Your task to perform on an android device: Open Yahoo.com Image 0: 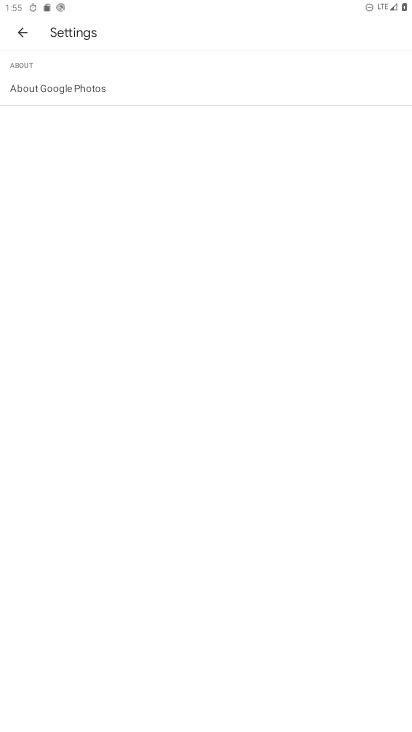
Step 0: press home button
Your task to perform on an android device: Open Yahoo.com Image 1: 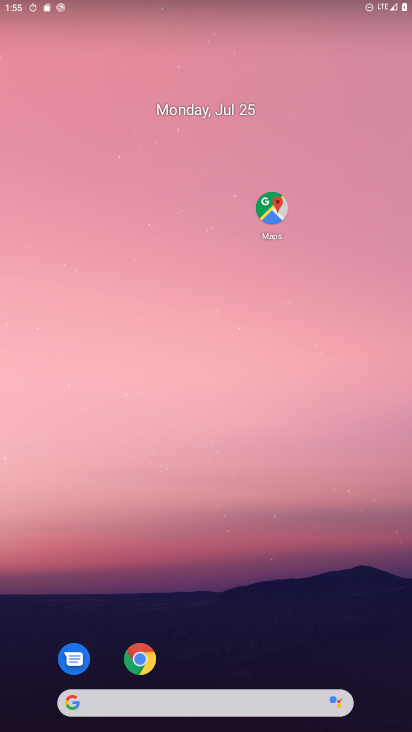
Step 1: click (110, 705)
Your task to perform on an android device: Open Yahoo.com Image 2: 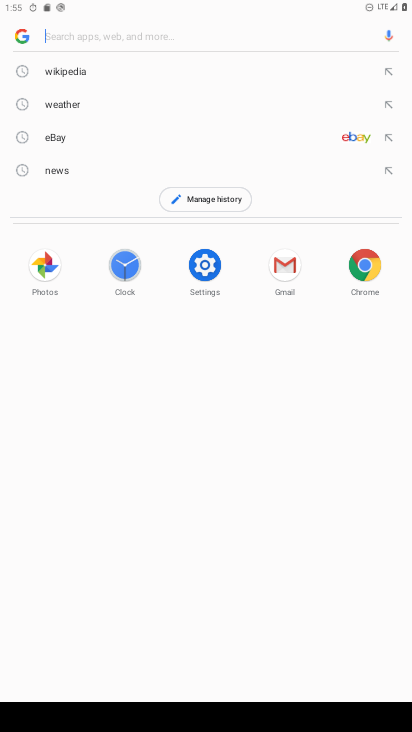
Step 2: type "Yahoo.com"
Your task to perform on an android device: Open Yahoo.com Image 3: 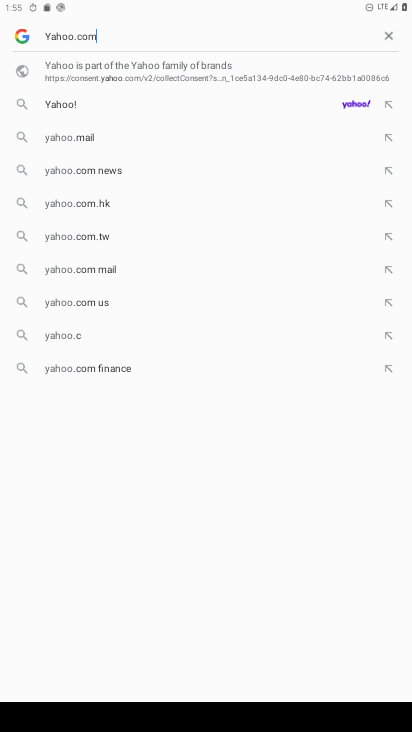
Step 3: type ""
Your task to perform on an android device: Open Yahoo.com Image 4: 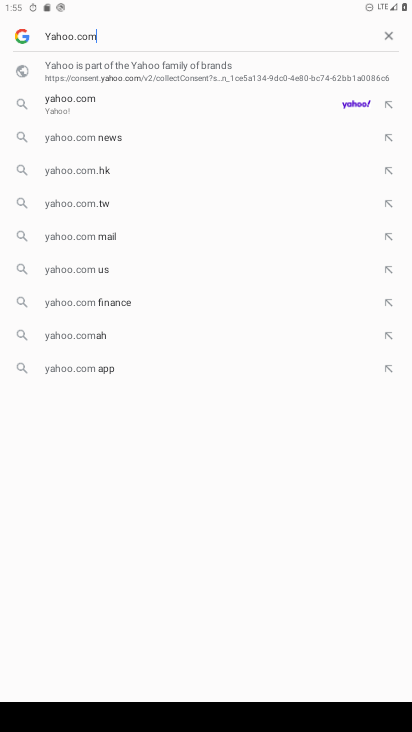
Step 4: click (78, 90)
Your task to perform on an android device: Open Yahoo.com Image 5: 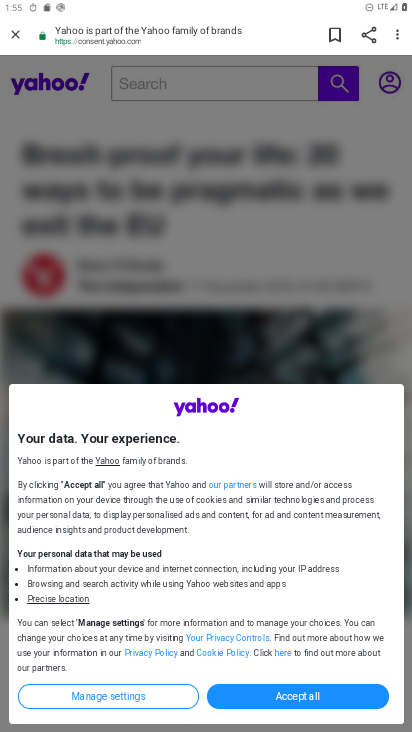
Step 5: task complete